Your task to perform on an android device: set the timer Image 0: 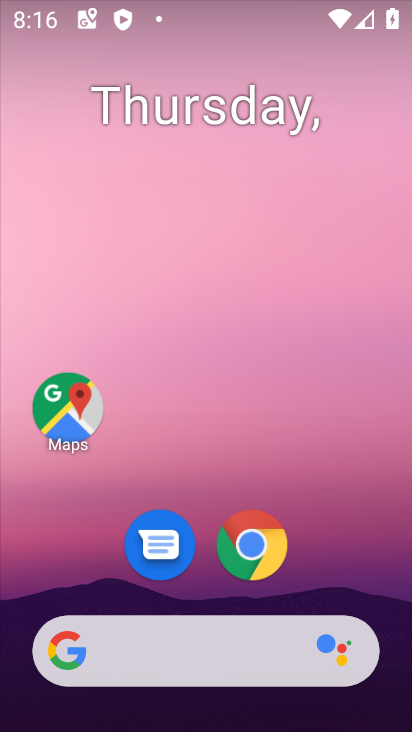
Step 0: drag from (350, 569) to (313, 178)
Your task to perform on an android device: set the timer Image 1: 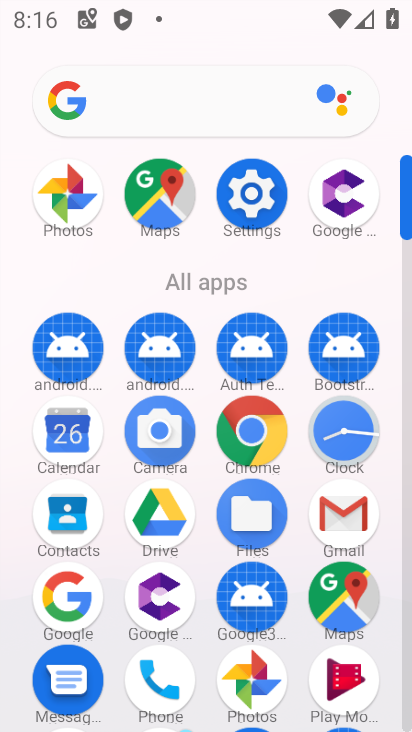
Step 1: click (346, 431)
Your task to perform on an android device: set the timer Image 2: 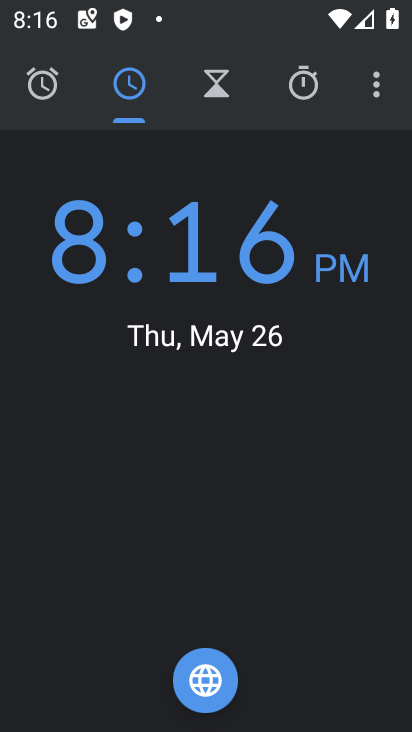
Step 2: click (216, 81)
Your task to perform on an android device: set the timer Image 3: 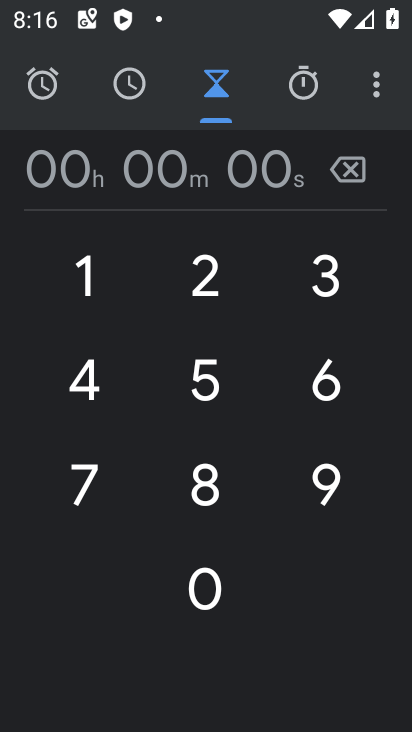
Step 3: type "123"
Your task to perform on an android device: set the timer Image 4: 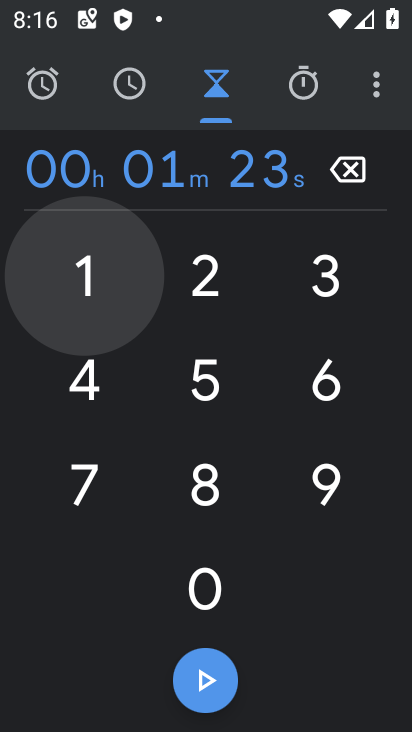
Step 4: click (203, 681)
Your task to perform on an android device: set the timer Image 5: 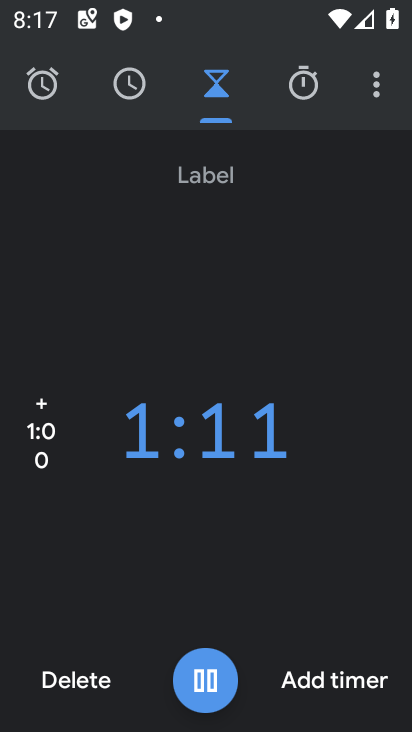
Step 5: click (203, 681)
Your task to perform on an android device: set the timer Image 6: 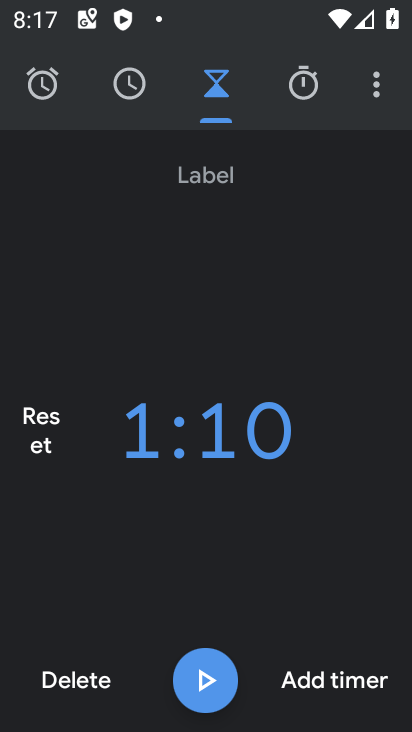
Step 6: task complete